Your task to perform on an android device: toggle improve location accuracy Image 0: 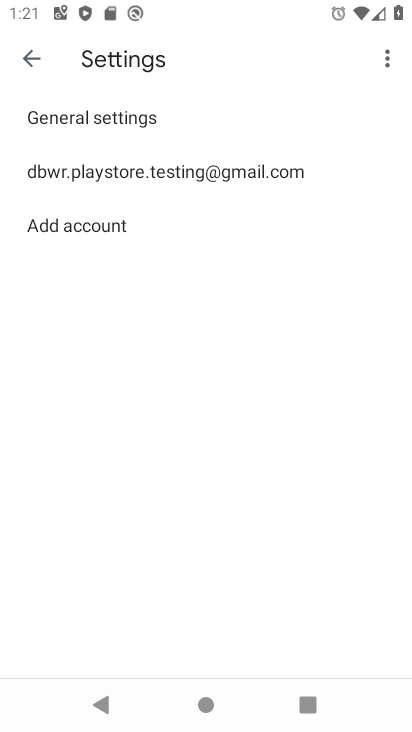
Step 0: press home button
Your task to perform on an android device: toggle improve location accuracy Image 1: 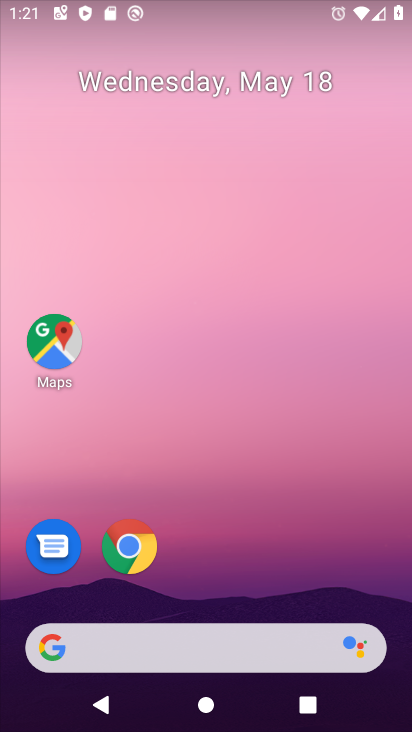
Step 1: drag from (272, 575) to (278, 166)
Your task to perform on an android device: toggle improve location accuracy Image 2: 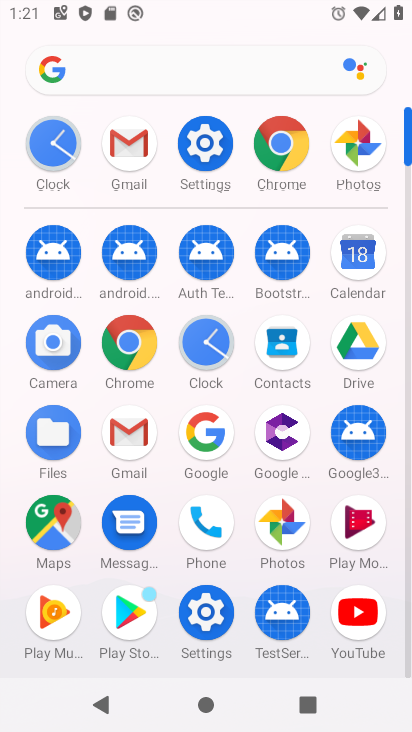
Step 2: click (213, 163)
Your task to perform on an android device: toggle improve location accuracy Image 3: 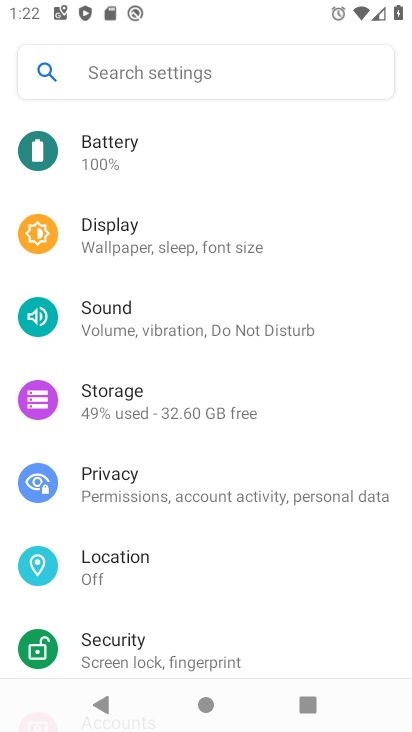
Step 3: click (169, 573)
Your task to perform on an android device: toggle improve location accuracy Image 4: 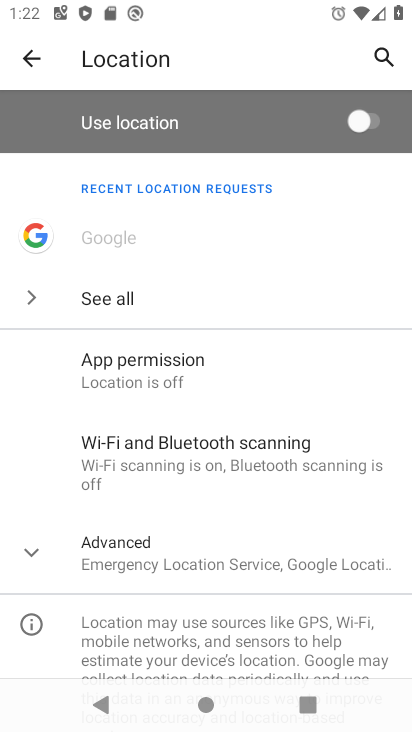
Step 4: click (165, 565)
Your task to perform on an android device: toggle improve location accuracy Image 5: 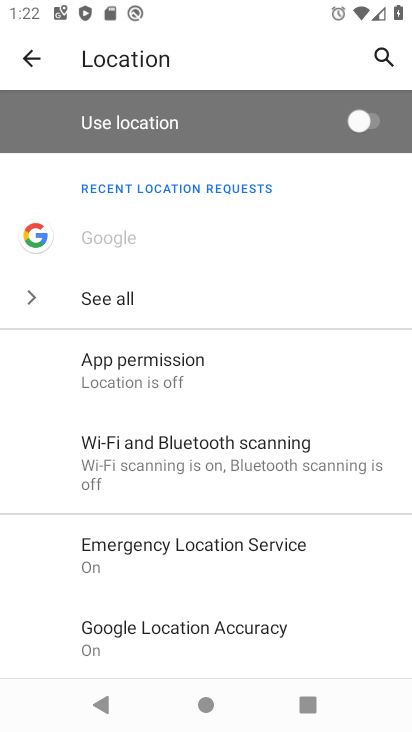
Step 5: drag from (188, 576) to (221, 358)
Your task to perform on an android device: toggle improve location accuracy Image 6: 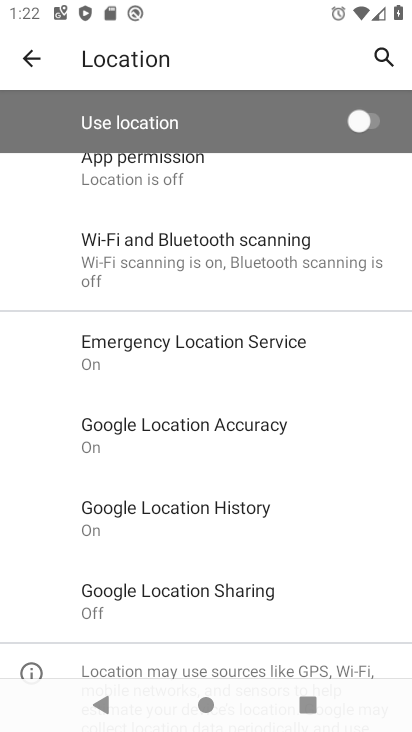
Step 6: click (231, 428)
Your task to perform on an android device: toggle improve location accuracy Image 7: 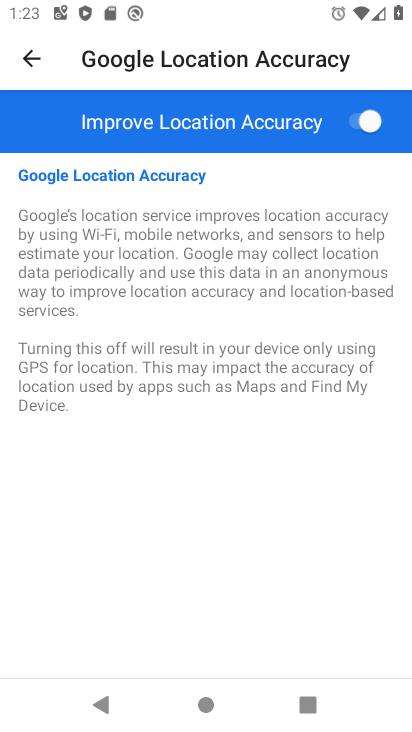
Step 7: click (369, 121)
Your task to perform on an android device: toggle improve location accuracy Image 8: 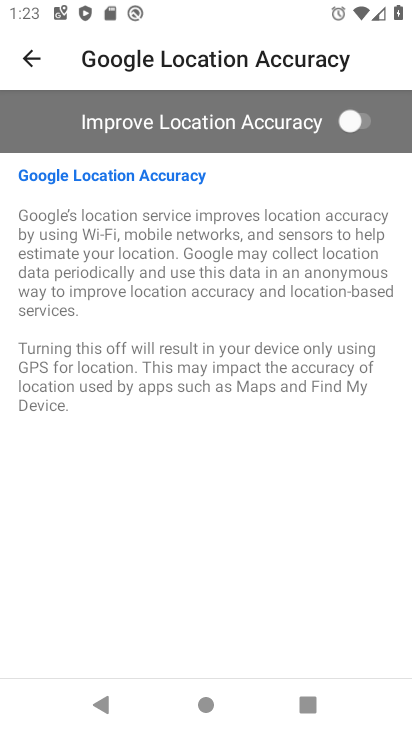
Step 8: task complete